Your task to perform on an android device: set the timer Image 0: 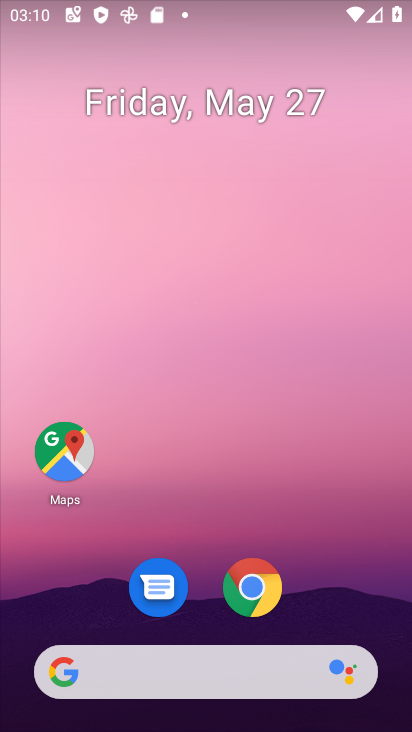
Step 0: drag from (338, 625) to (271, 73)
Your task to perform on an android device: set the timer Image 1: 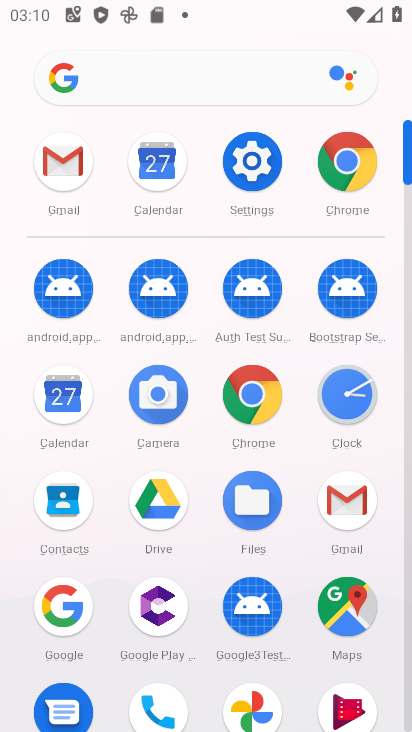
Step 1: click (357, 399)
Your task to perform on an android device: set the timer Image 2: 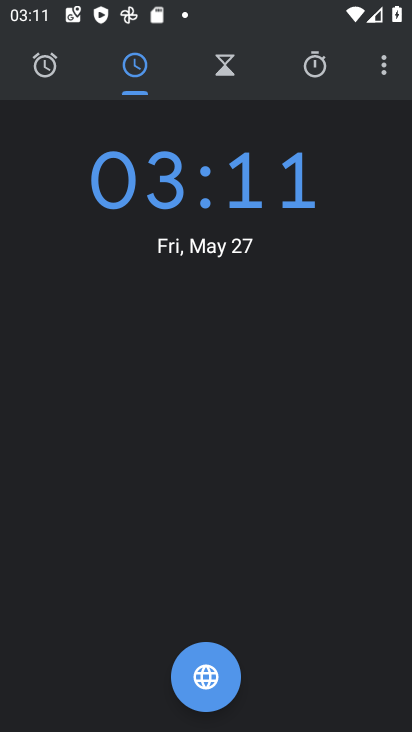
Step 2: click (330, 66)
Your task to perform on an android device: set the timer Image 3: 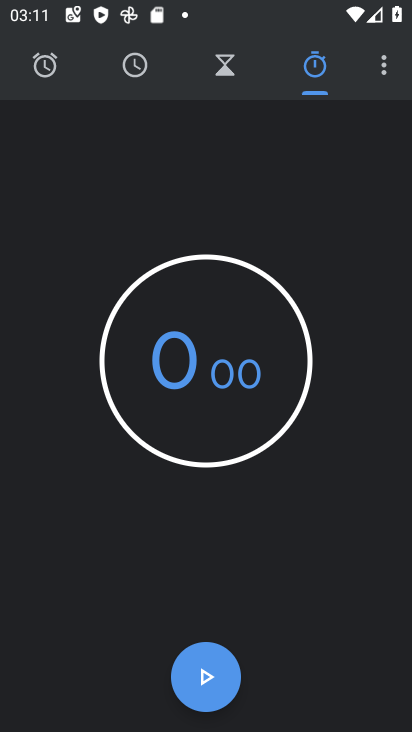
Step 3: task complete